Your task to perform on an android device: What's the weather going to be tomorrow? Image 0: 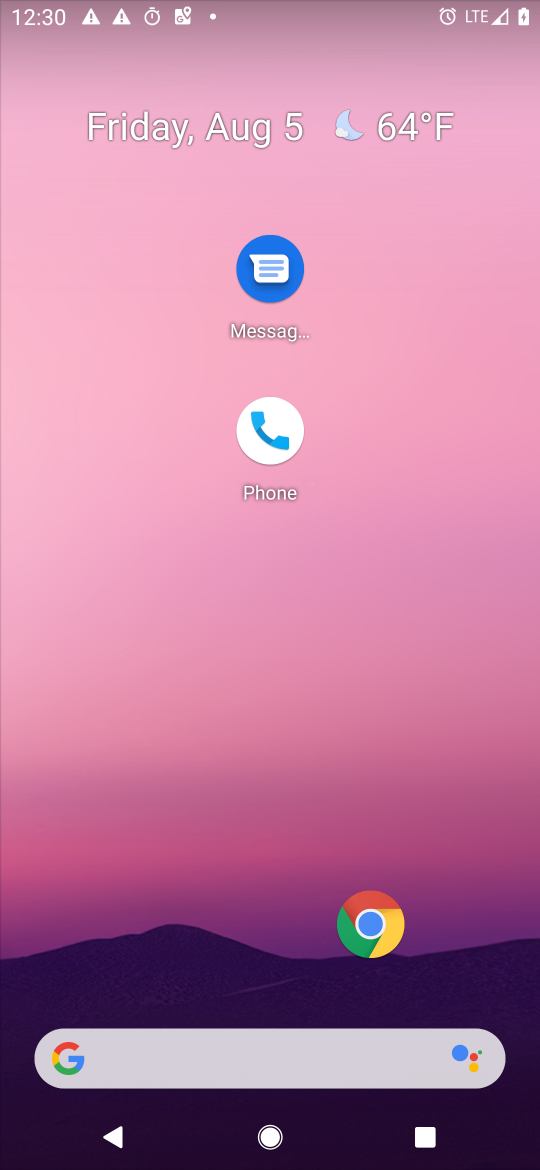
Step 0: drag from (307, 918) to (334, 324)
Your task to perform on an android device: What's the weather going to be tomorrow? Image 1: 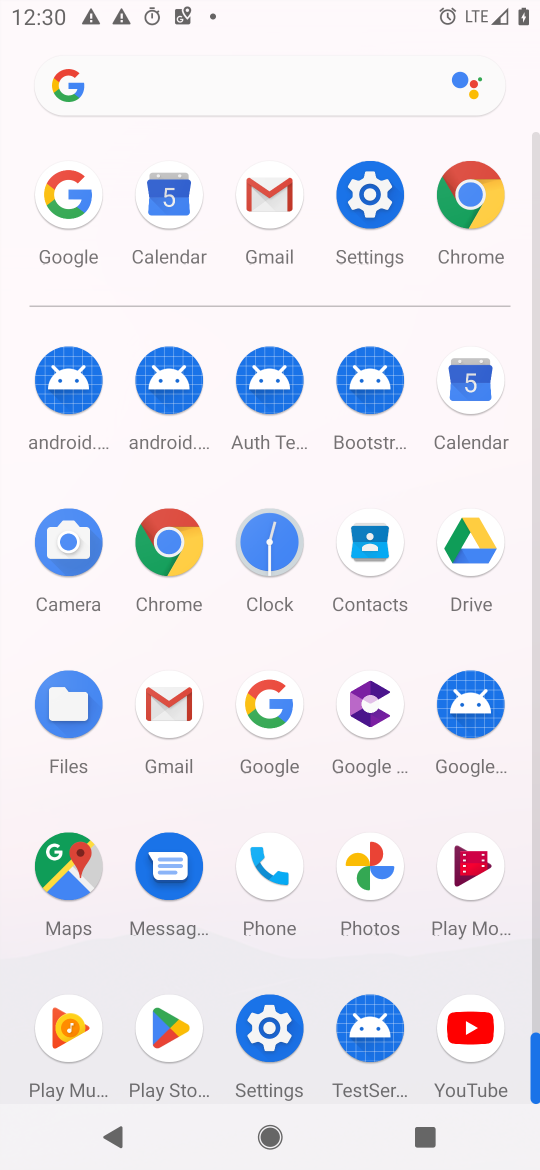
Step 1: click (363, 196)
Your task to perform on an android device: What's the weather going to be tomorrow? Image 2: 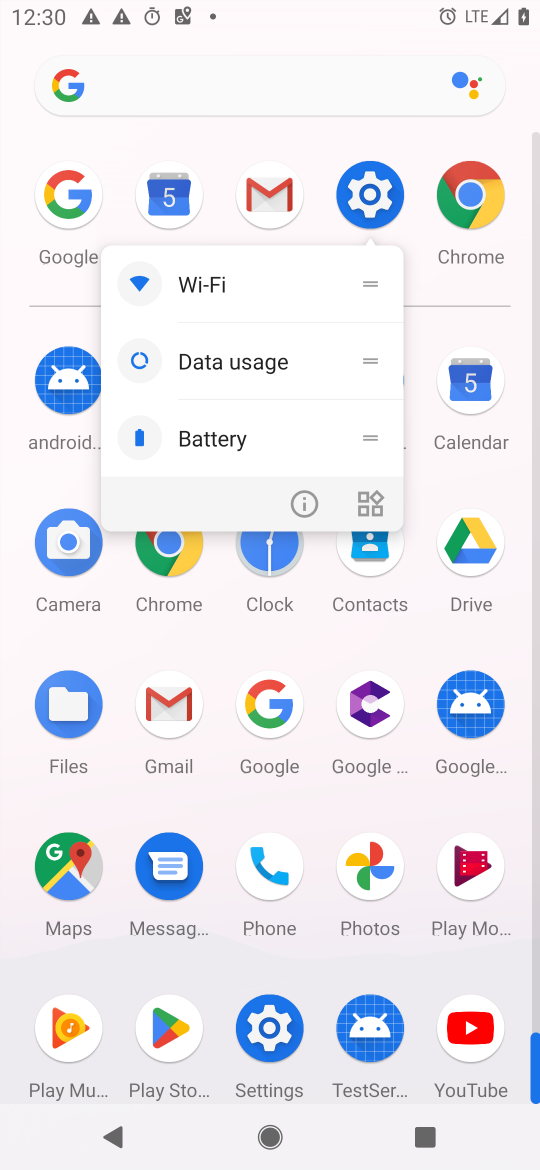
Step 2: click (310, 498)
Your task to perform on an android device: What's the weather going to be tomorrow? Image 3: 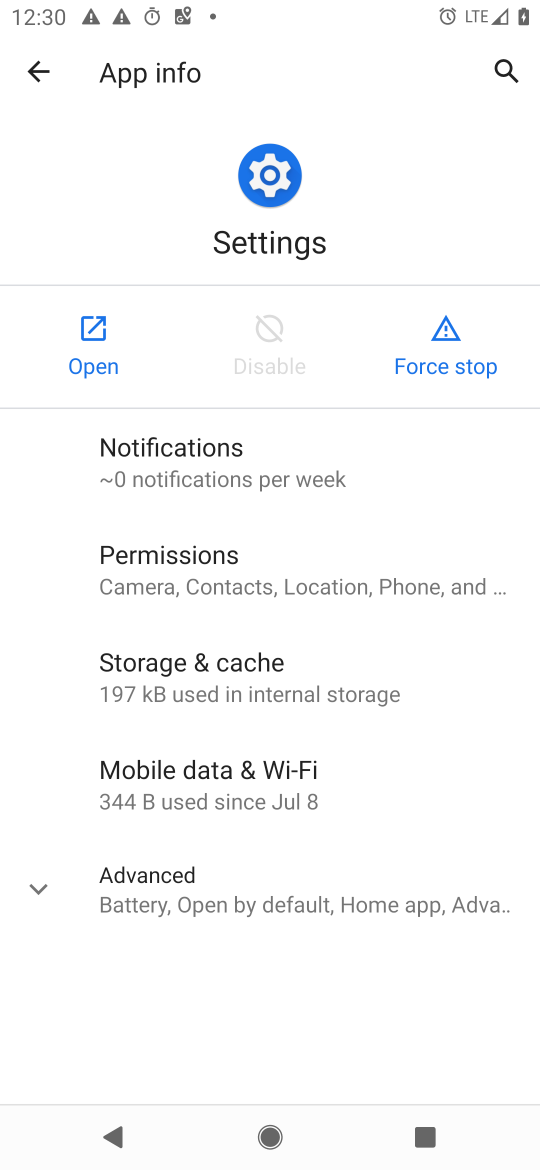
Step 3: click (115, 323)
Your task to perform on an android device: What's the weather going to be tomorrow? Image 4: 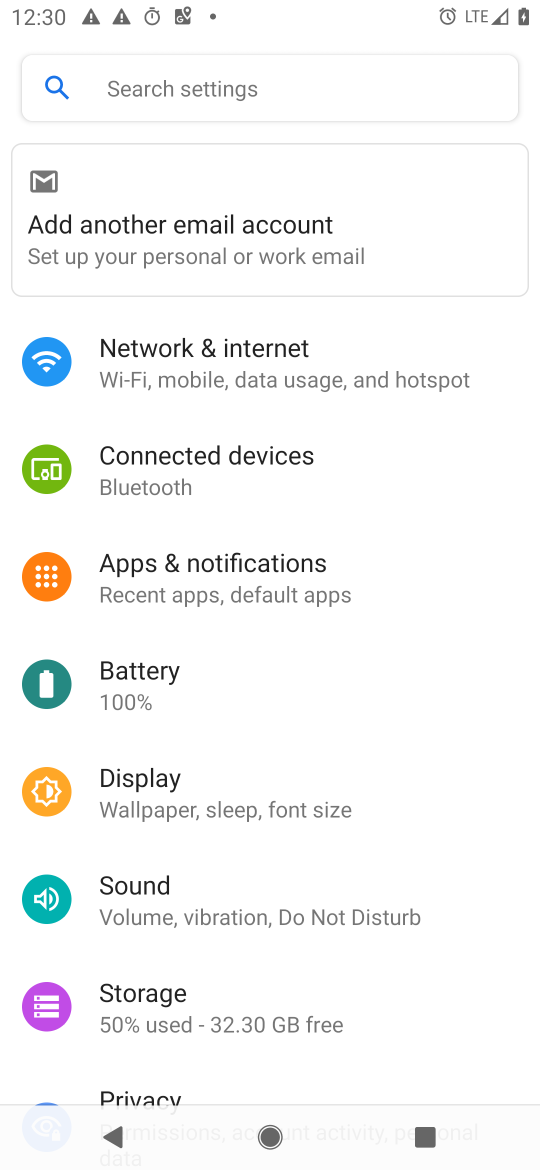
Step 4: press home button
Your task to perform on an android device: What's the weather going to be tomorrow? Image 5: 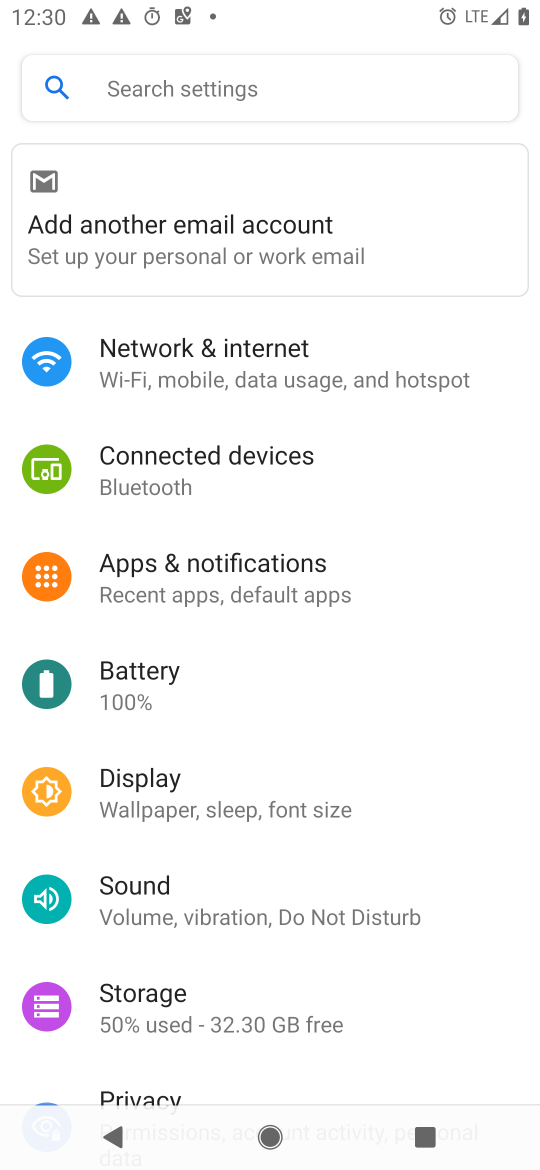
Step 5: click (472, 191)
Your task to perform on an android device: What's the weather going to be tomorrow? Image 6: 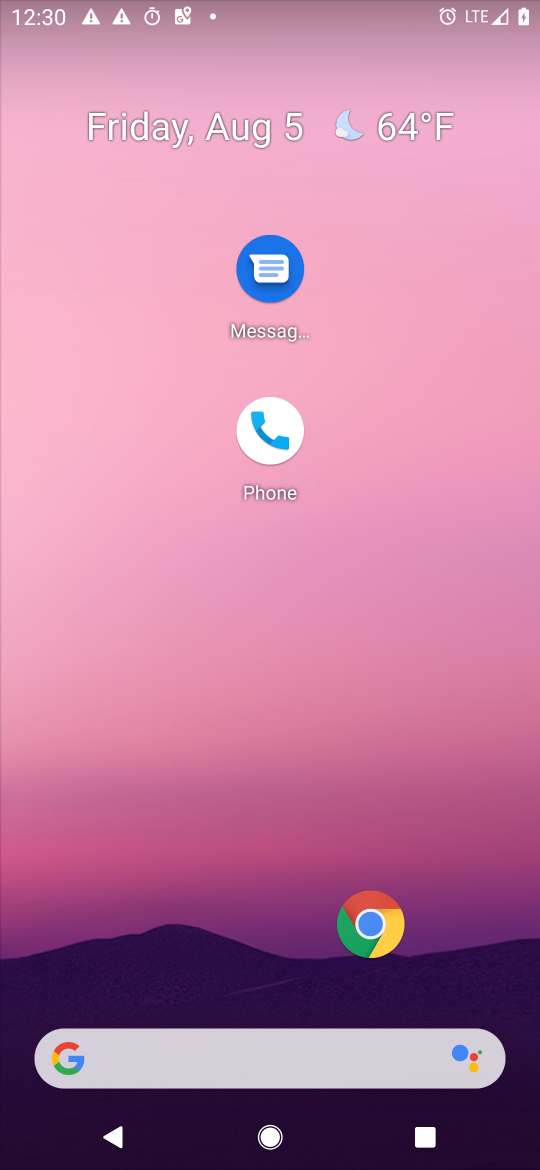
Step 6: drag from (255, 666) to (250, 560)
Your task to perform on an android device: What's the weather going to be tomorrow? Image 7: 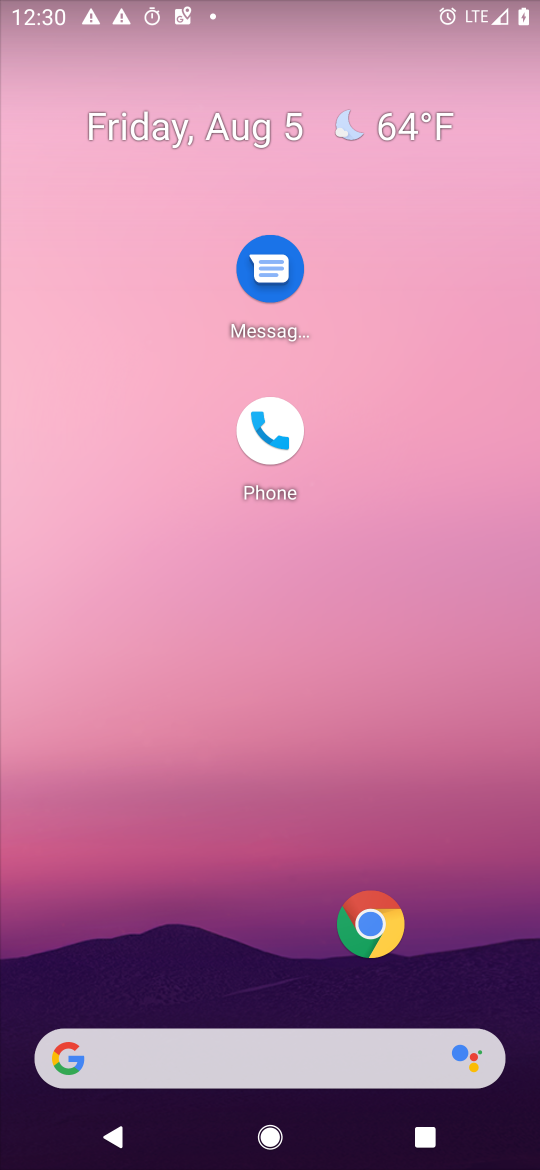
Step 7: drag from (262, 964) to (295, 27)
Your task to perform on an android device: What's the weather going to be tomorrow? Image 8: 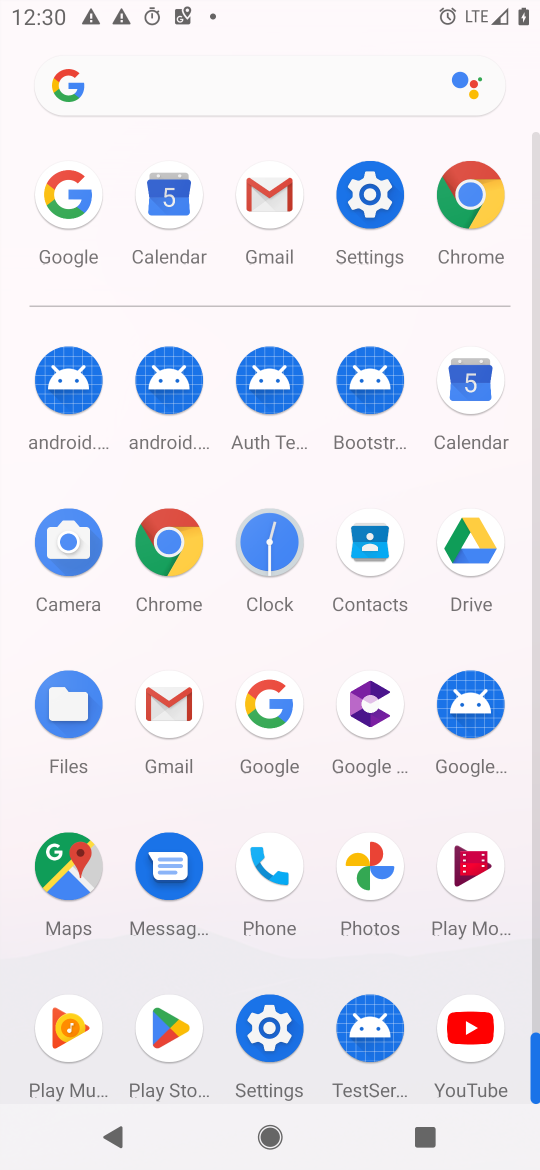
Step 8: click (233, 91)
Your task to perform on an android device: What's the weather going to be tomorrow? Image 9: 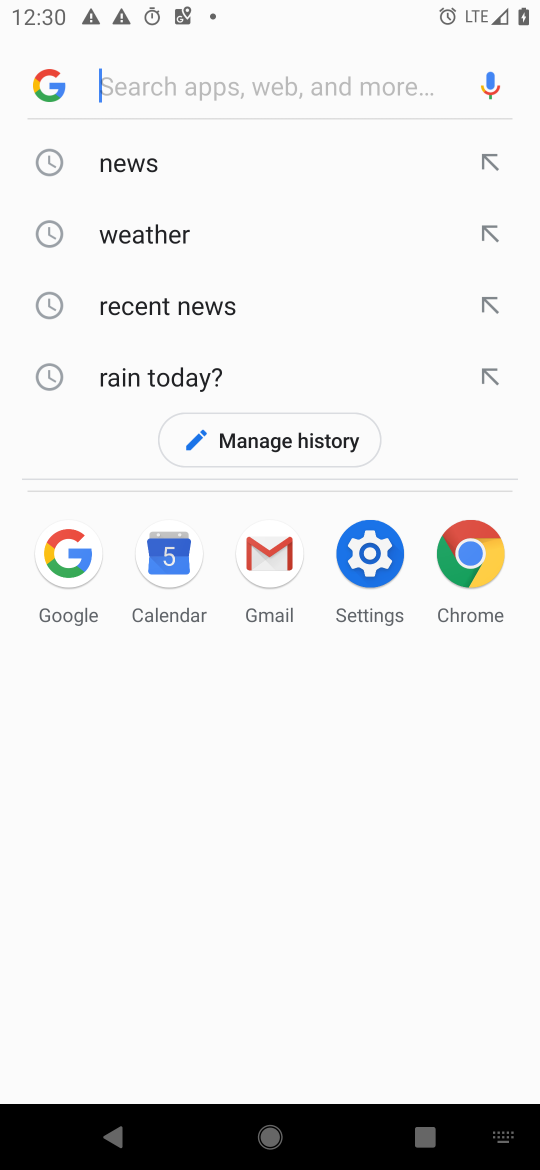
Step 9: type "What's the weather going to be tomorrow?"
Your task to perform on an android device: What's the weather going to be tomorrow? Image 10: 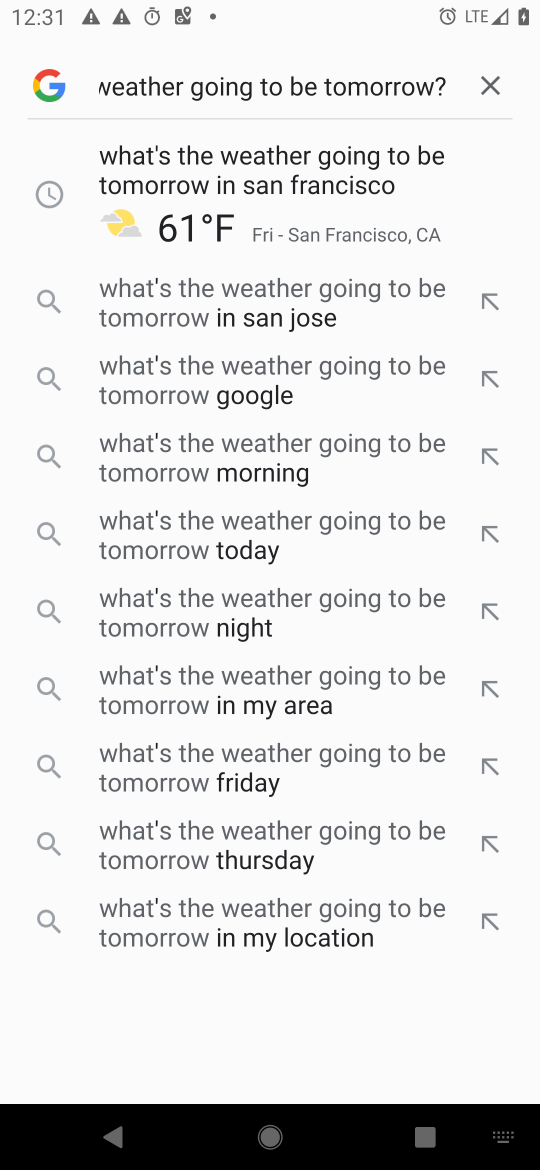
Step 10: click (169, 184)
Your task to perform on an android device: What's the weather going to be tomorrow? Image 11: 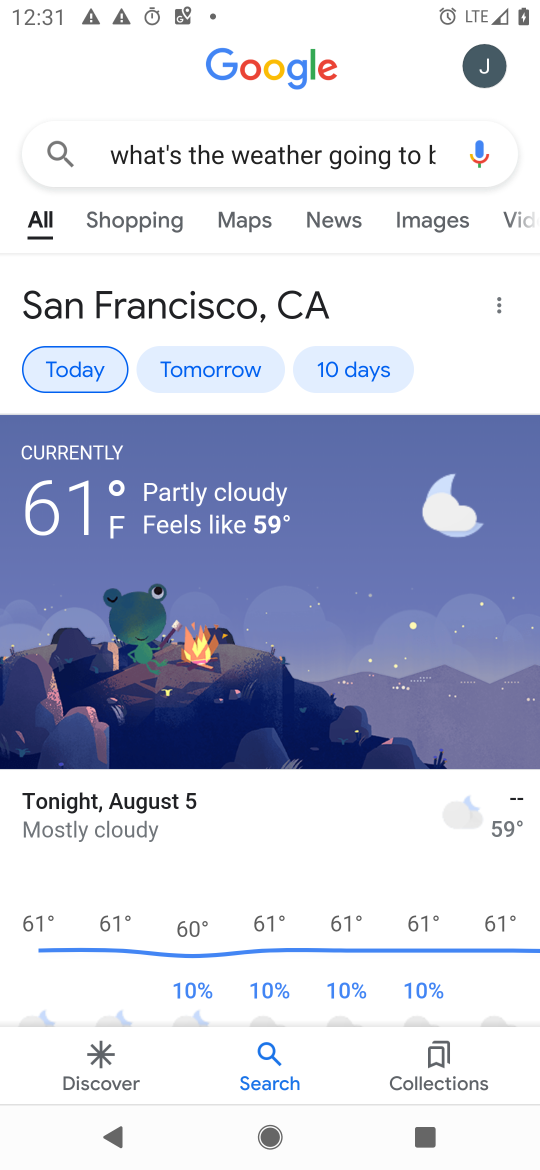
Step 11: task complete